Your task to perform on an android device: see tabs open on other devices in the chrome app Image 0: 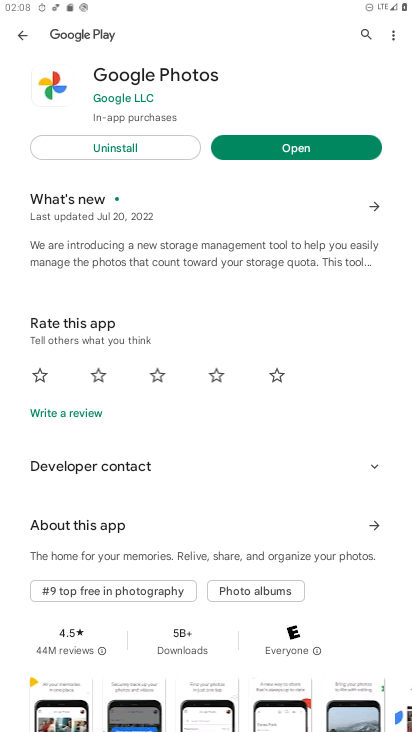
Step 0: press home button
Your task to perform on an android device: see tabs open on other devices in the chrome app Image 1: 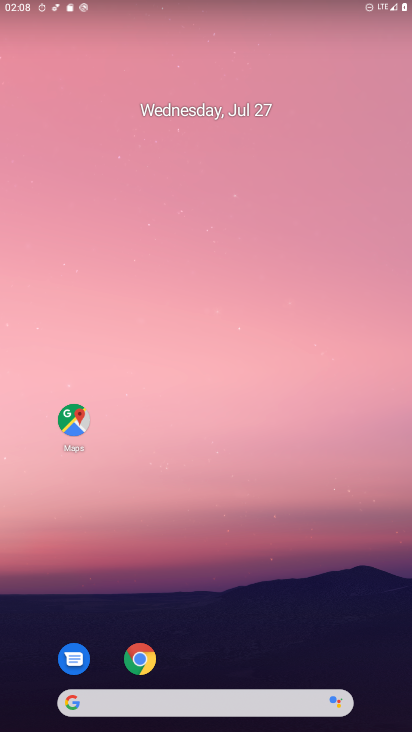
Step 1: drag from (223, 6) to (182, 0)
Your task to perform on an android device: see tabs open on other devices in the chrome app Image 2: 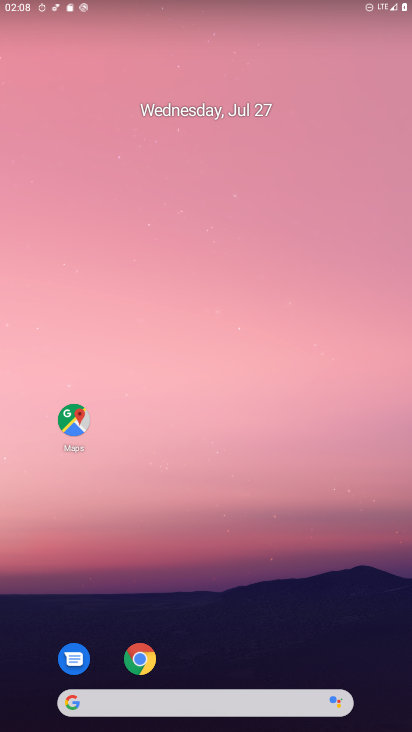
Step 2: drag from (289, 562) to (216, 58)
Your task to perform on an android device: see tabs open on other devices in the chrome app Image 3: 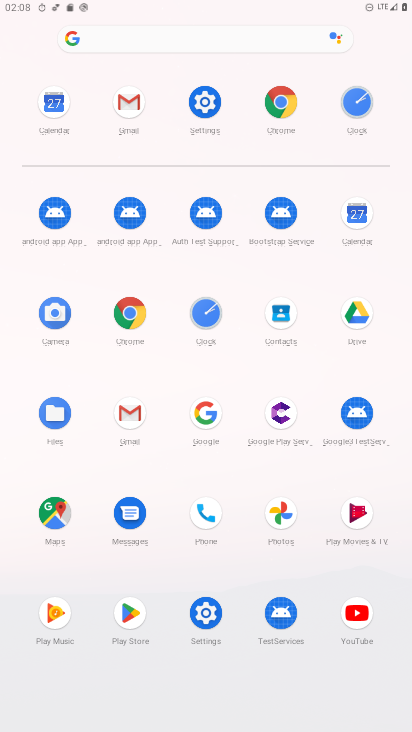
Step 3: click (125, 313)
Your task to perform on an android device: see tabs open on other devices in the chrome app Image 4: 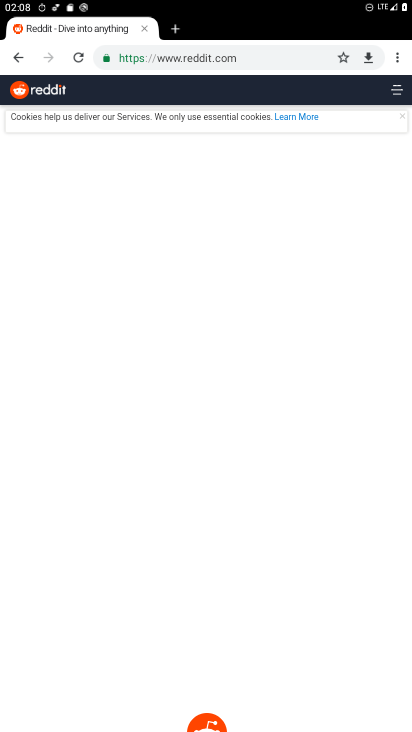
Step 4: task complete